Your task to perform on an android device: What's the weather going to be tomorrow? Image 0: 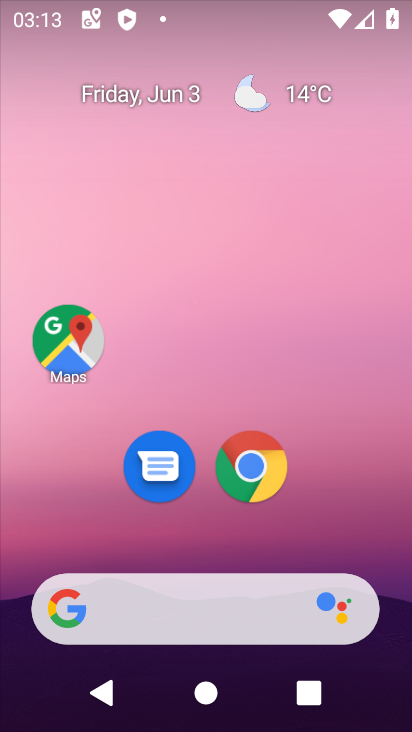
Step 0: press home button
Your task to perform on an android device: What's the weather going to be tomorrow? Image 1: 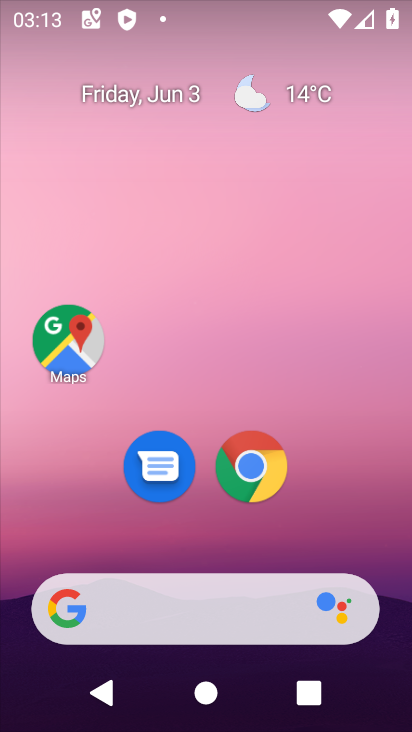
Step 1: click (309, 92)
Your task to perform on an android device: What's the weather going to be tomorrow? Image 2: 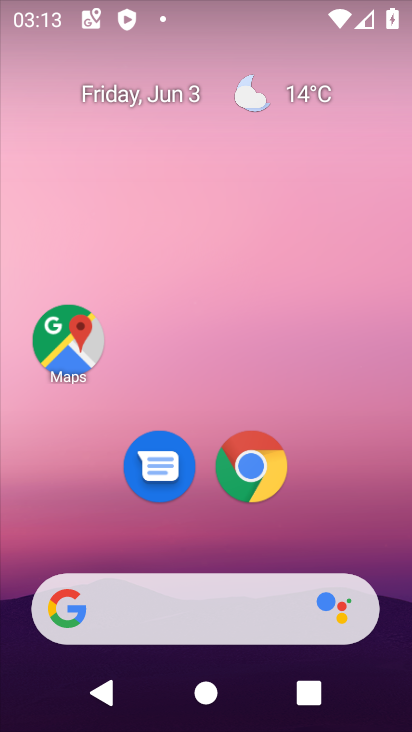
Step 2: click (298, 92)
Your task to perform on an android device: What's the weather going to be tomorrow? Image 3: 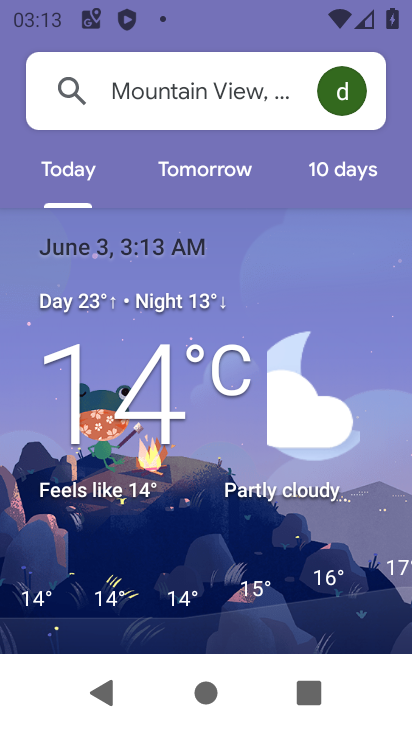
Step 3: click (203, 189)
Your task to perform on an android device: What's the weather going to be tomorrow? Image 4: 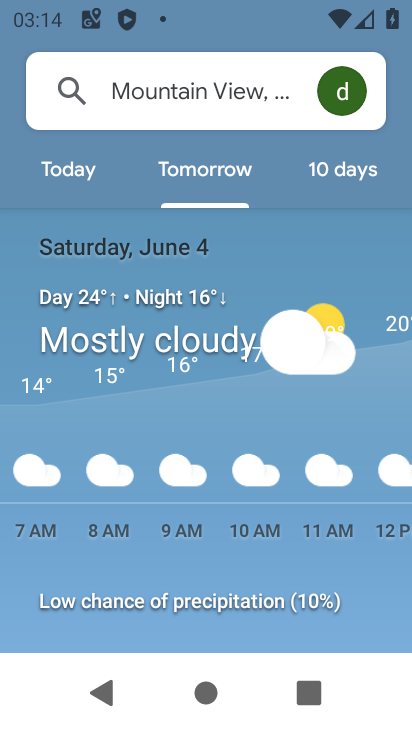
Step 4: task complete